Your task to perform on an android device: open chrome privacy settings Image 0: 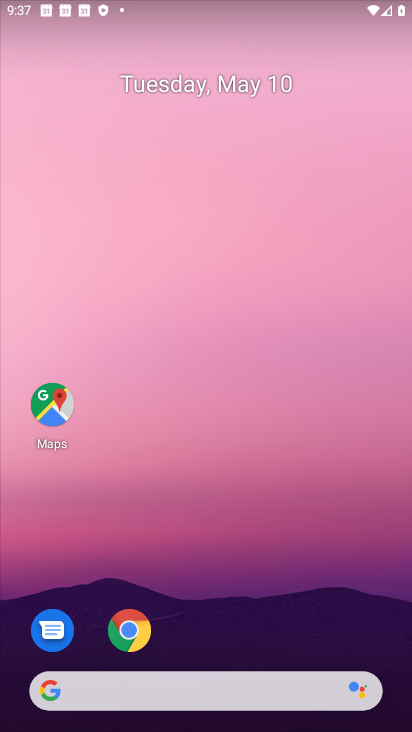
Step 0: click (135, 631)
Your task to perform on an android device: open chrome privacy settings Image 1: 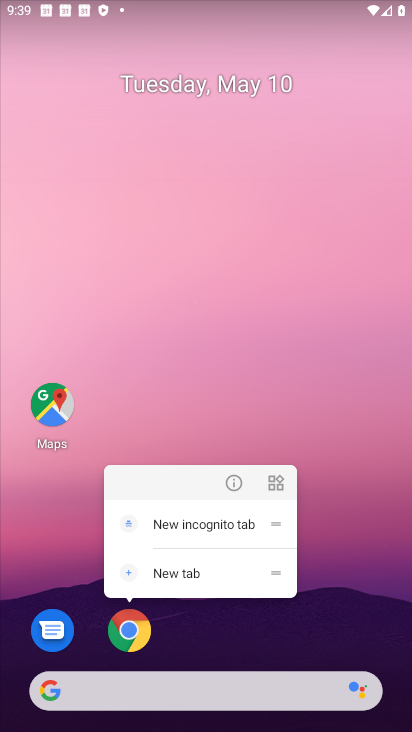
Step 1: click (136, 634)
Your task to perform on an android device: open chrome privacy settings Image 2: 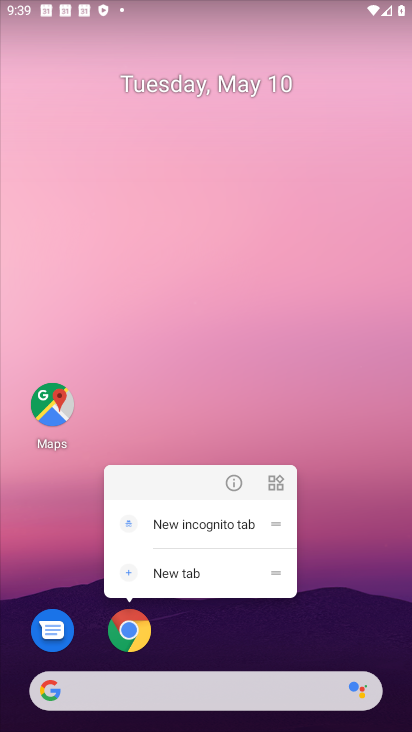
Step 2: click (136, 634)
Your task to perform on an android device: open chrome privacy settings Image 3: 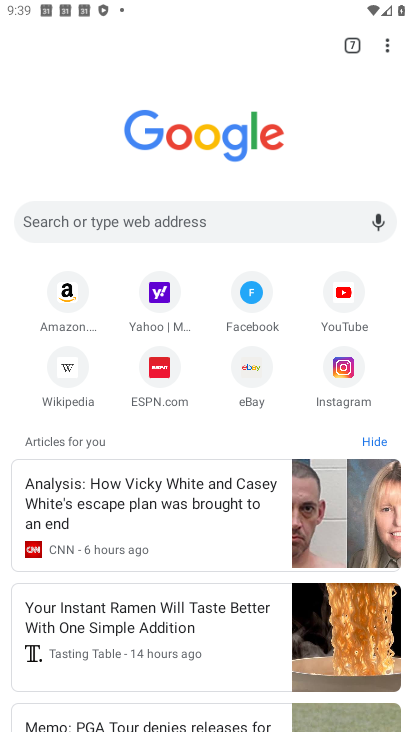
Step 3: drag from (392, 37) to (271, 387)
Your task to perform on an android device: open chrome privacy settings Image 4: 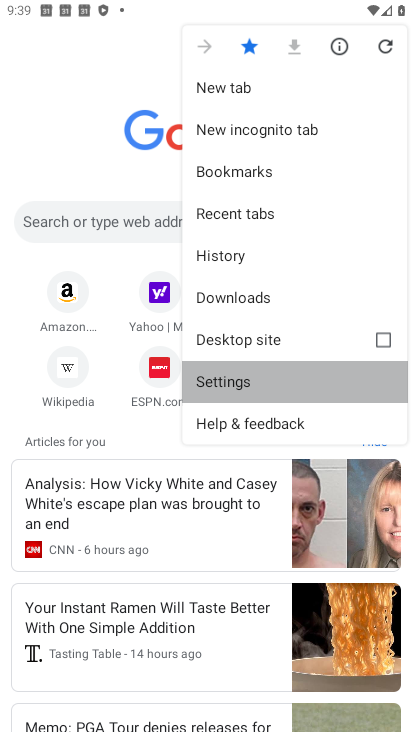
Step 4: click (271, 387)
Your task to perform on an android device: open chrome privacy settings Image 5: 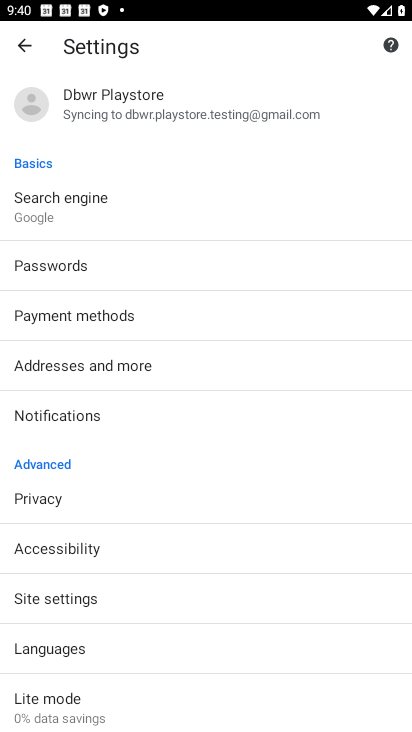
Step 5: click (75, 504)
Your task to perform on an android device: open chrome privacy settings Image 6: 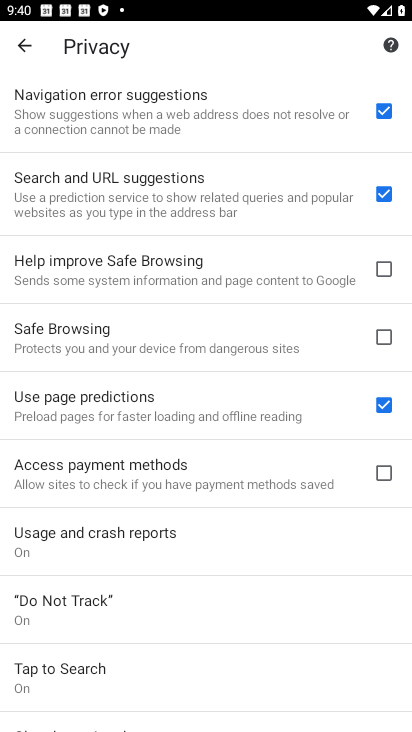
Step 6: task complete